Your task to perform on an android device: Open my contact list Image 0: 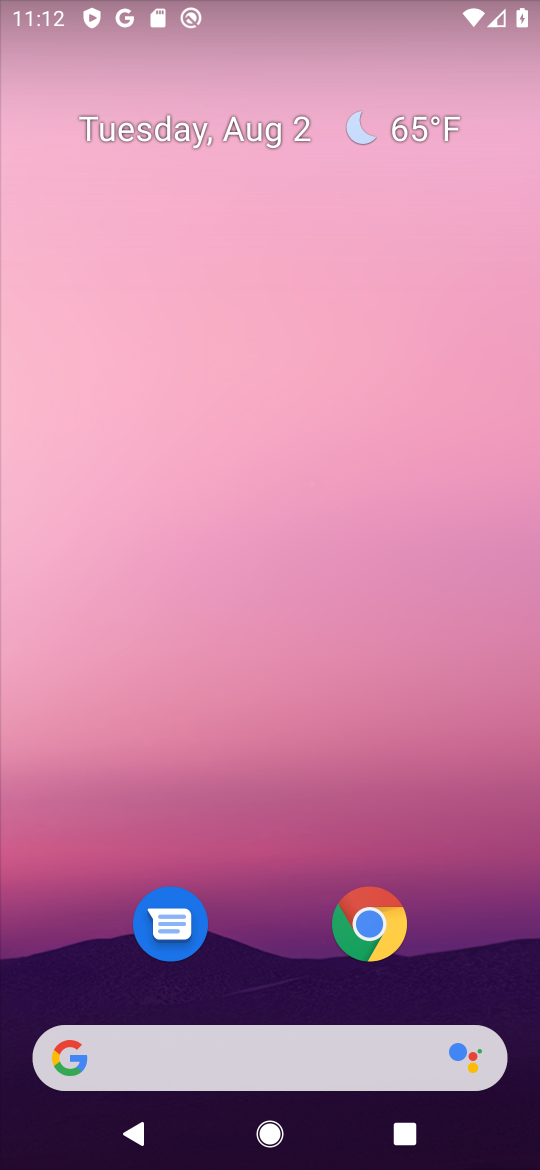
Step 0: drag from (271, 931) to (293, 328)
Your task to perform on an android device: Open my contact list Image 1: 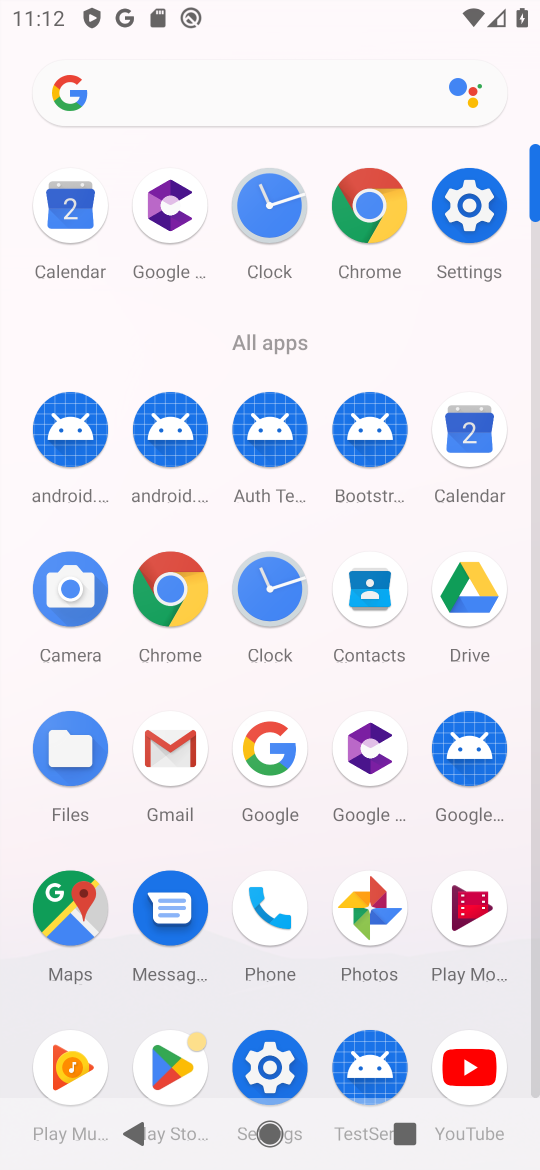
Step 1: drag from (310, 871) to (414, 59)
Your task to perform on an android device: Open my contact list Image 2: 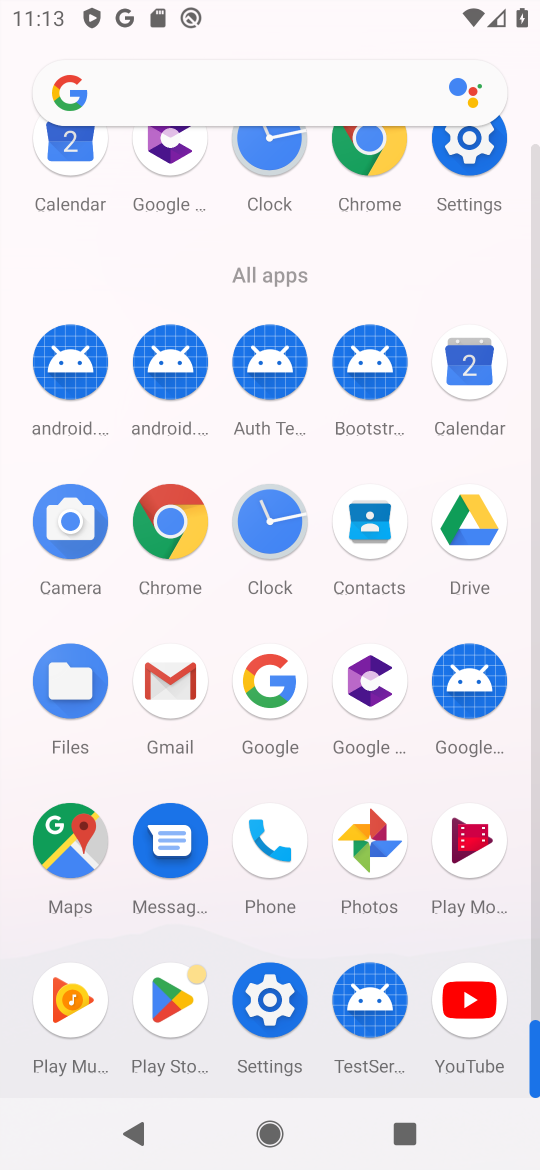
Step 2: click (278, 854)
Your task to perform on an android device: Open my contact list Image 3: 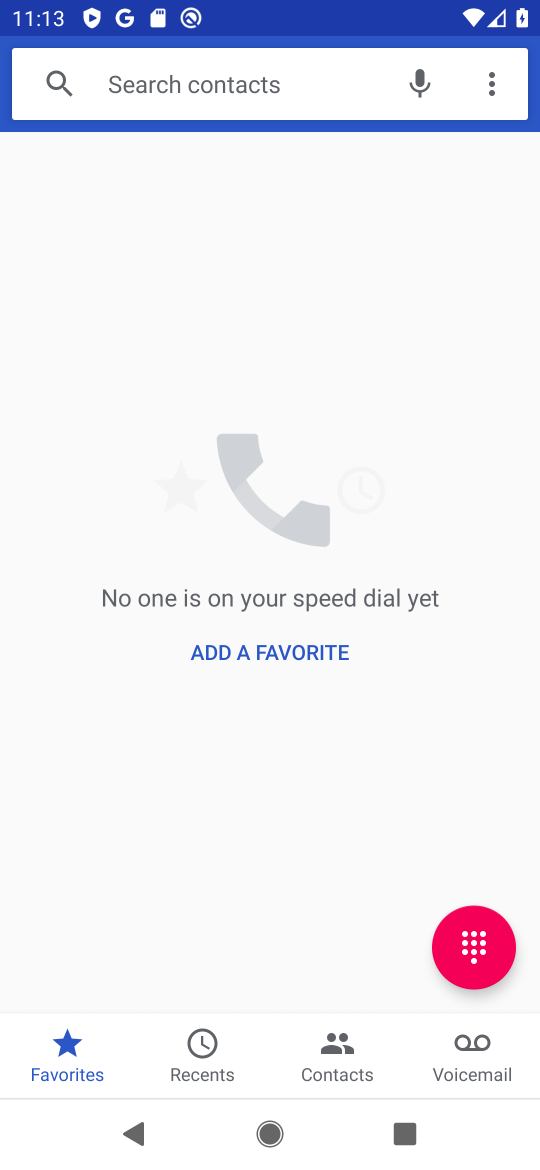
Step 3: click (348, 1037)
Your task to perform on an android device: Open my contact list Image 4: 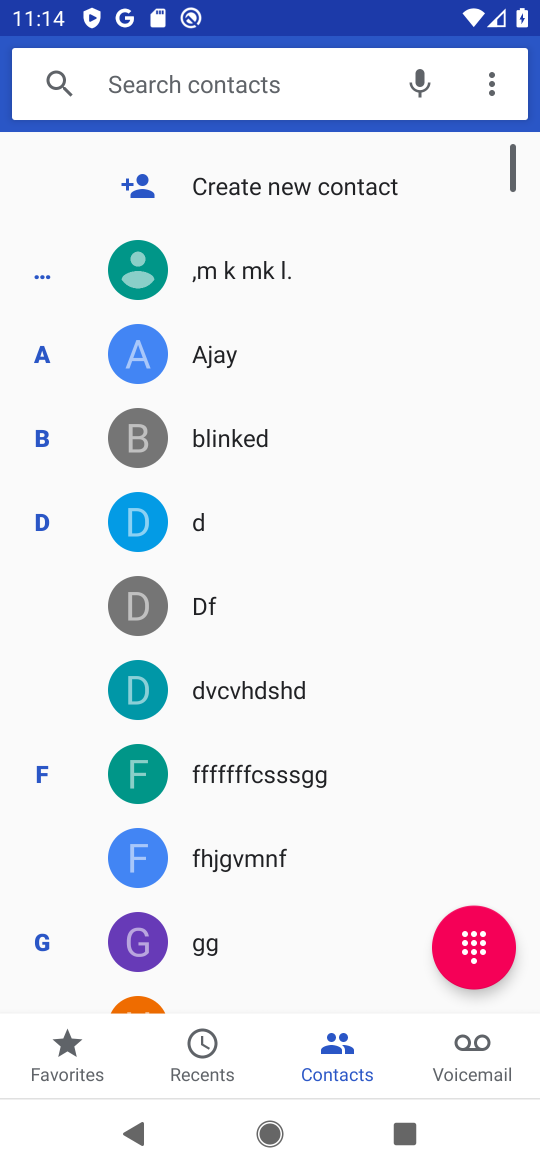
Step 4: task complete